Your task to perform on an android device: toggle pop-ups in chrome Image 0: 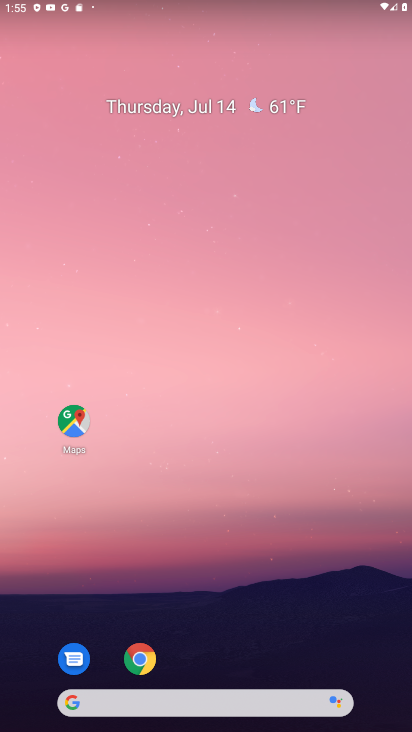
Step 0: click (133, 656)
Your task to perform on an android device: toggle pop-ups in chrome Image 1: 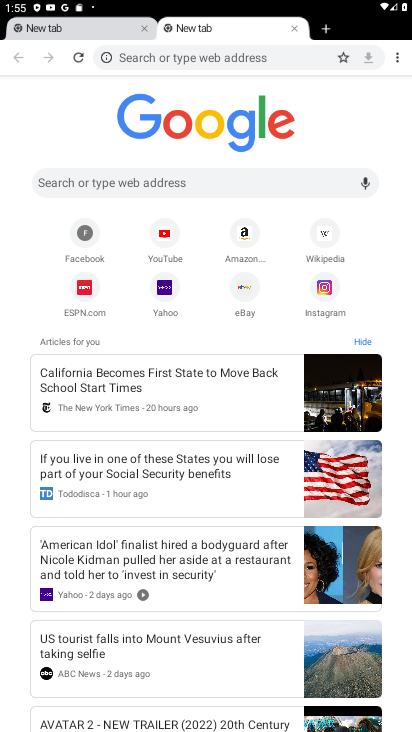
Step 1: drag from (399, 57) to (309, 294)
Your task to perform on an android device: toggle pop-ups in chrome Image 2: 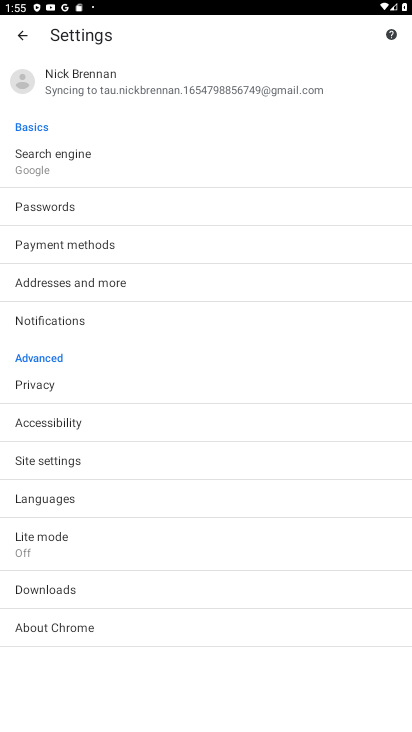
Step 2: click (39, 459)
Your task to perform on an android device: toggle pop-ups in chrome Image 3: 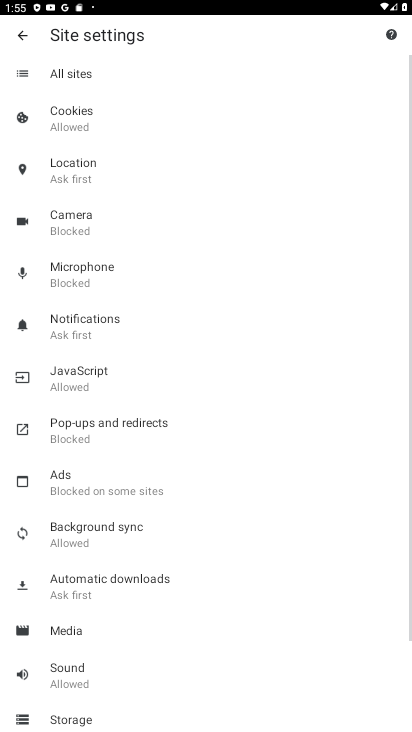
Step 3: click (55, 440)
Your task to perform on an android device: toggle pop-ups in chrome Image 4: 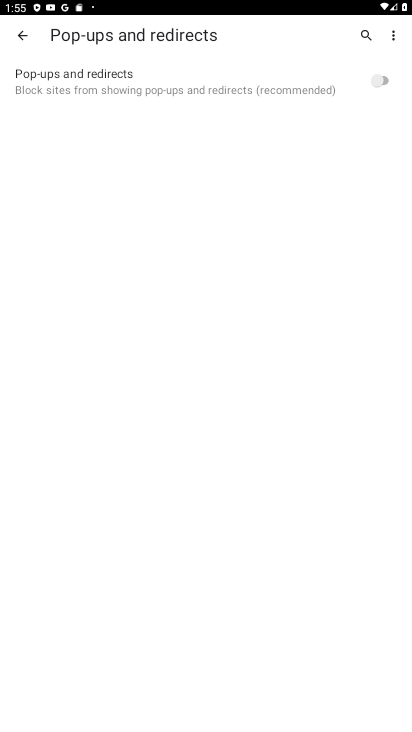
Step 4: click (377, 88)
Your task to perform on an android device: toggle pop-ups in chrome Image 5: 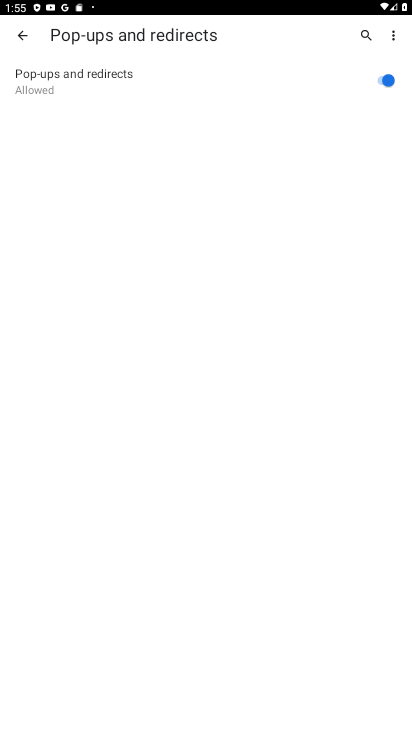
Step 5: task complete